Your task to perform on an android device: Open the calendar and show me this week's events? Image 0: 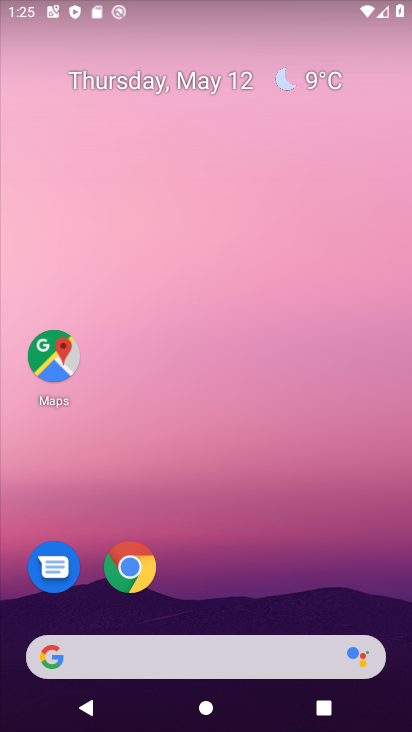
Step 0: drag from (306, 568) to (220, 181)
Your task to perform on an android device: Open the calendar and show me this week's events? Image 1: 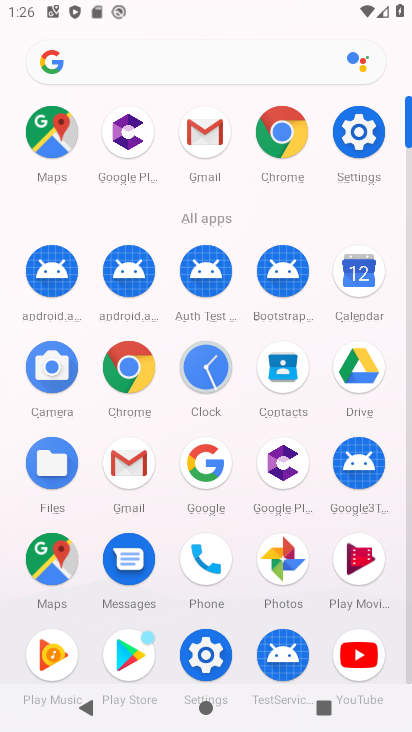
Step 1: drag from (245, 594) to (251, 305)
Your task to perform on an android device: Open the calendar and show me this week's events? Image 2: 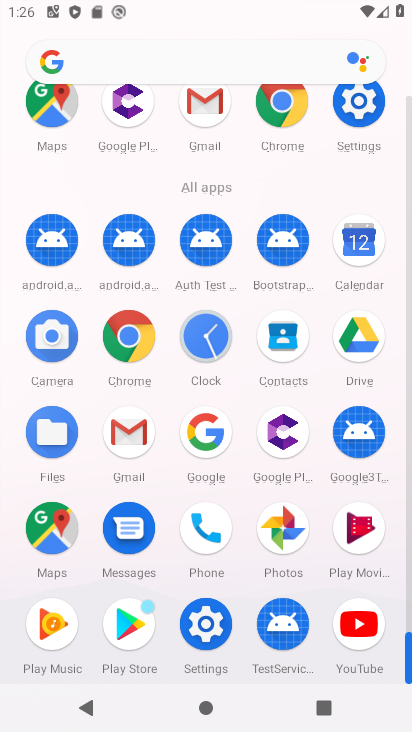
Step 2: click (48, 139)
Your task to perform on an android device: Open the calendar and show me this week's events? Image 3: 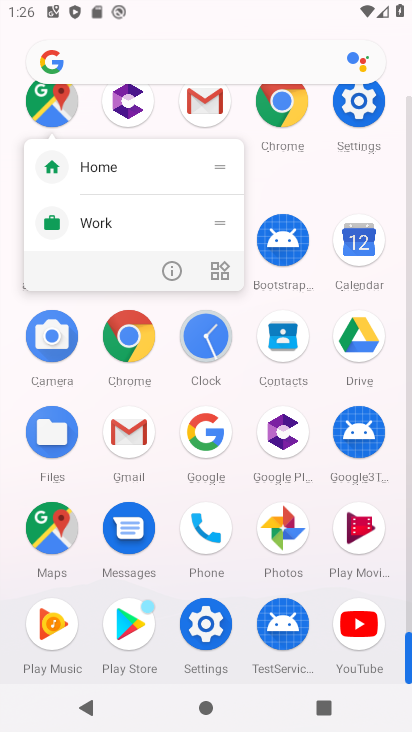
Step 3: press back button
Your task to perform on an android device: Open the calendar and show me this week's events? Image 4: 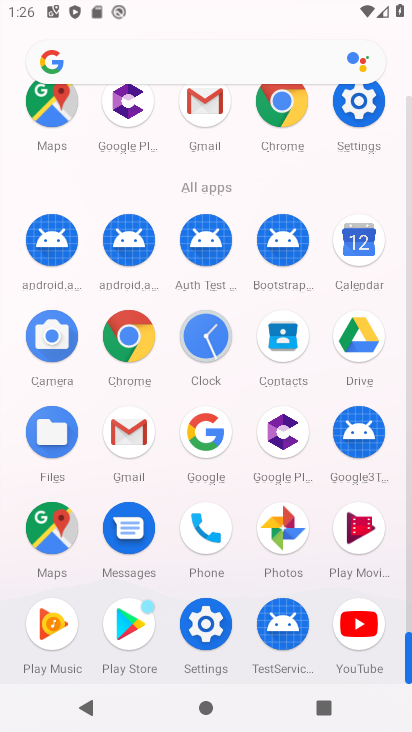
Step 4: click (387, 260)
Your task to perform on an android device: Open the calendar and show me this week's events? Image 5: 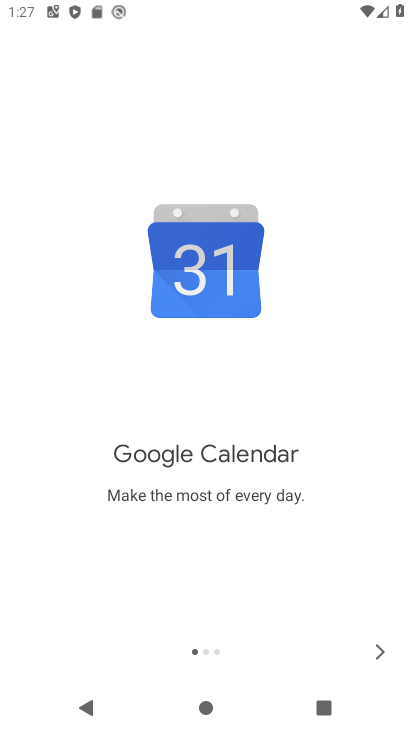
Step 5: click (379, 648)
Your task to perform on an android device: Open the calendar and show me this week's events? Image 6: 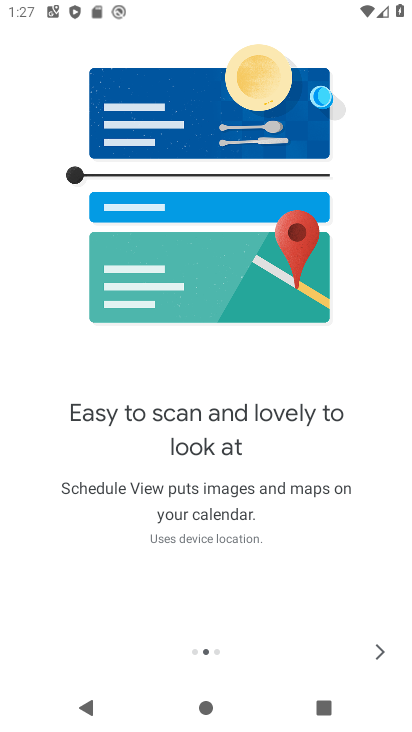
Step 6: click (379, 648)
Your task to perform on an android device: Open the calendar and show me this week's events? Image 7: 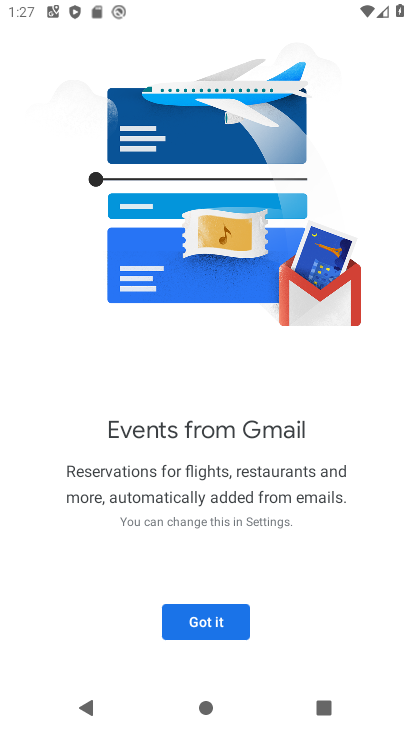
Step 7: click (223, 621)
Your task to perform on an android device: Open the calendar and show me this week's events? Image 8: 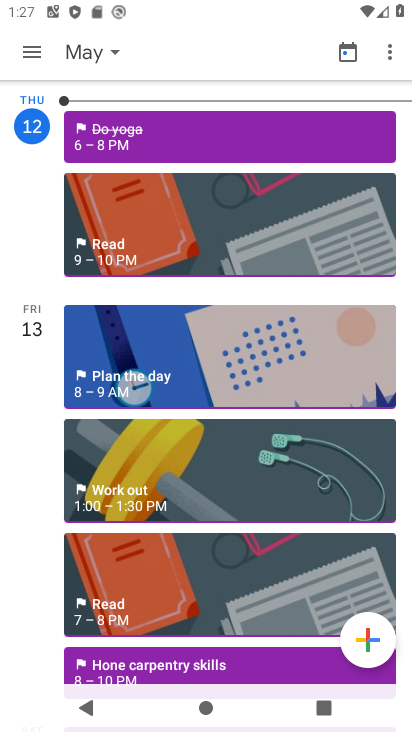
Step 8: click (98, 54)
Your task to perform on an android device: Open the calendar and show me this week's events? Image 9: 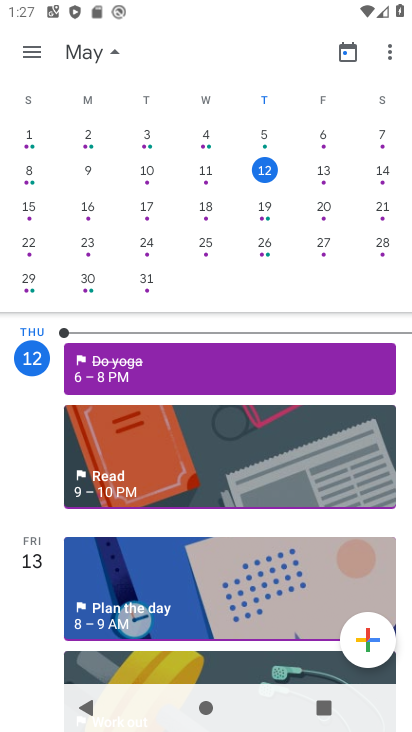
Step 9: click (27, 178)
Your task to perform on an android device: Open the calendar and show me this week's events? Image 10: 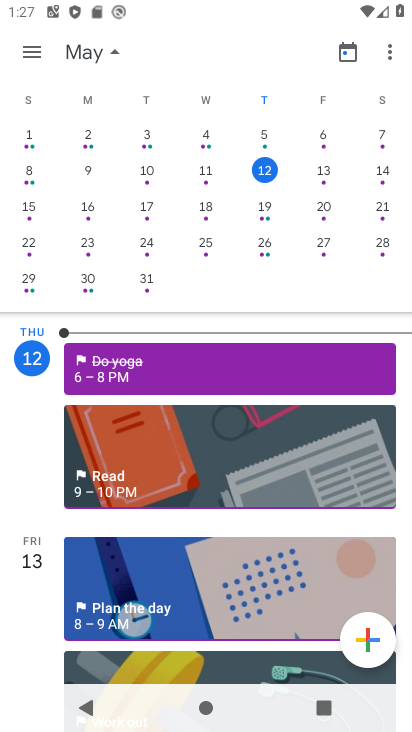
Step 10: click (34, 172)
Your task to perform on an android device: Open the calendar and show me this week's events? Image 11: 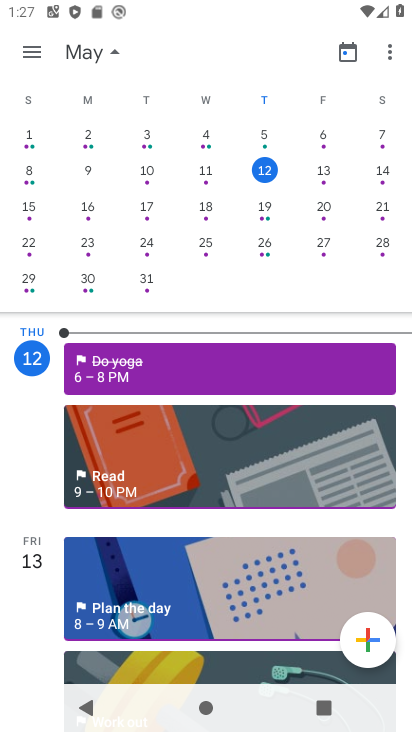
Step 11: click (27, 51)
Your task to perform on an android device: Open the calendar and show me this week's events? Image 12: 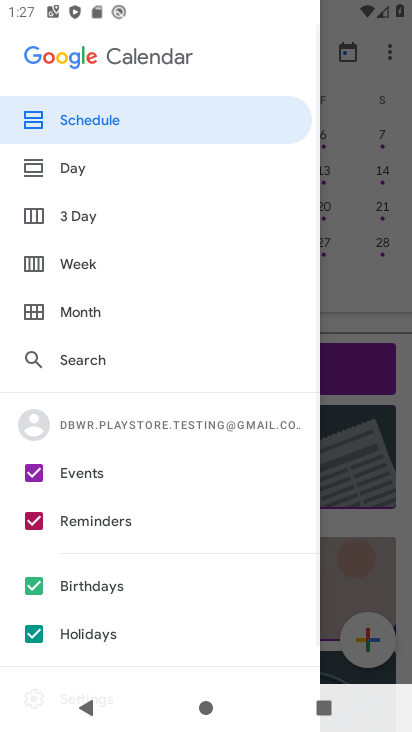
Step 12: click (67, 265)
Your task to perform on an android device: Open the calendar and show me this week's events? Image 13: 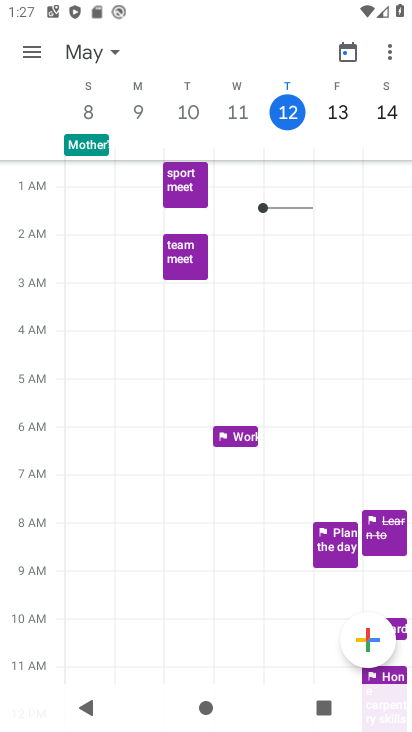
Step 13: task complete